Your task to perform on an android device: Play the last video I watched on Youtube Image 0: 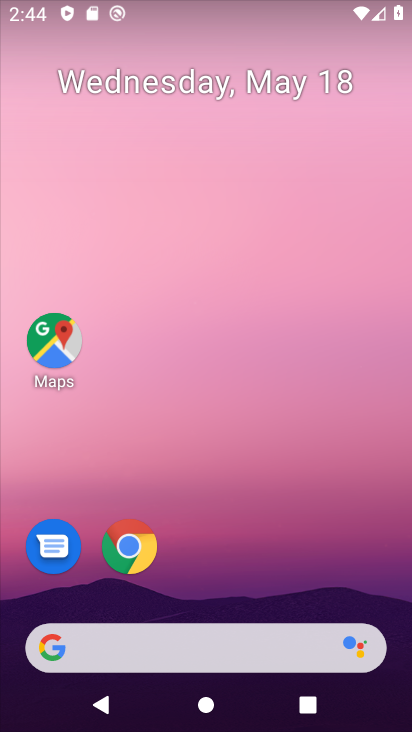
Step 0: drag from (225, 727) to (223, 230)
Your task to perform on an android device: Play the last video I watched on Youtube Image 1: 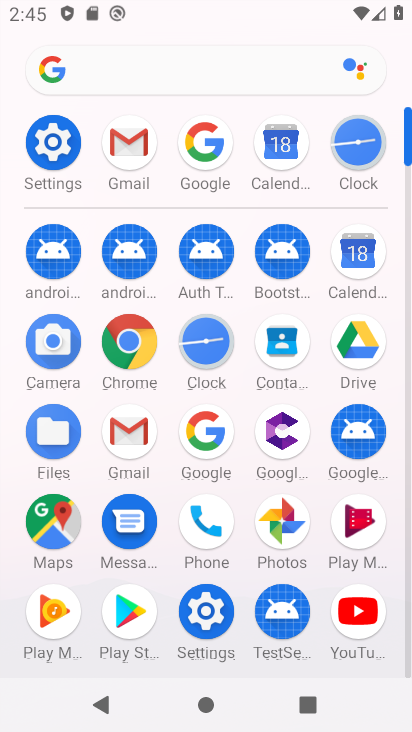
Step 1: click (360, 613)
Your task to perform on an android device: Play the last video I watched on Youtube Image 2: 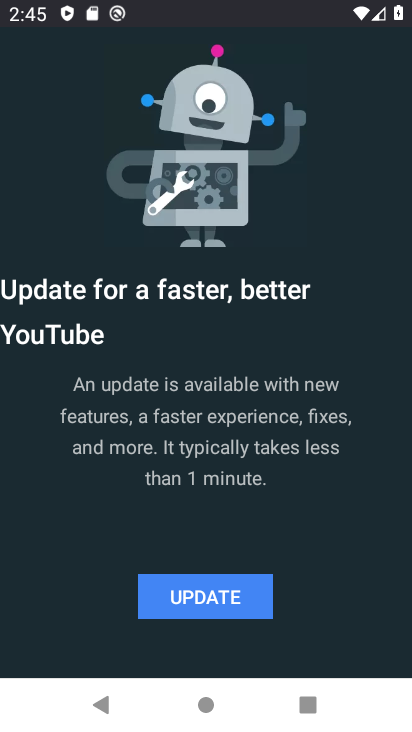
Step 2: click (213, 597)
Your task to perform on an android device: Play the last video I watched on Youtube Image 3: 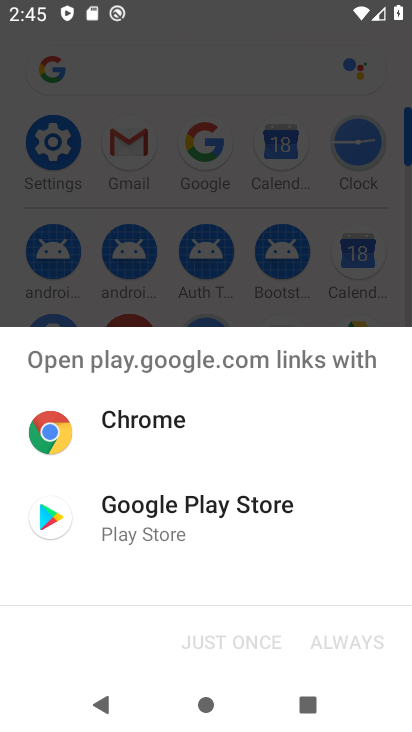
Step 3: click (168, 499)
Your task to perform on an android device: Play the last video I watched on Youtube Image 4: 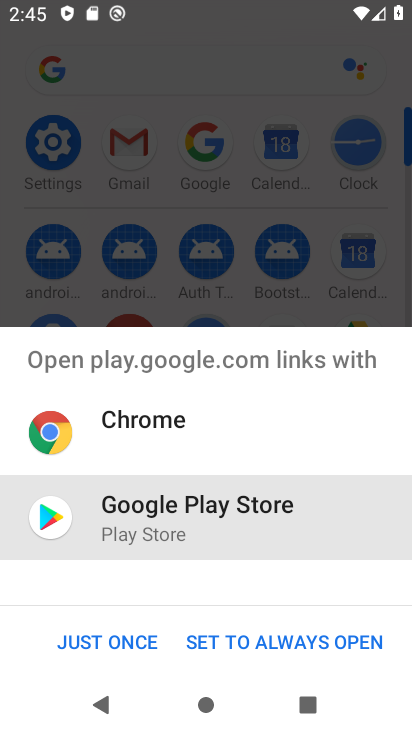
Step 4: click (103, 638)
Your task to perform on an android device: Play the last video I watched on Youtube Image 5: 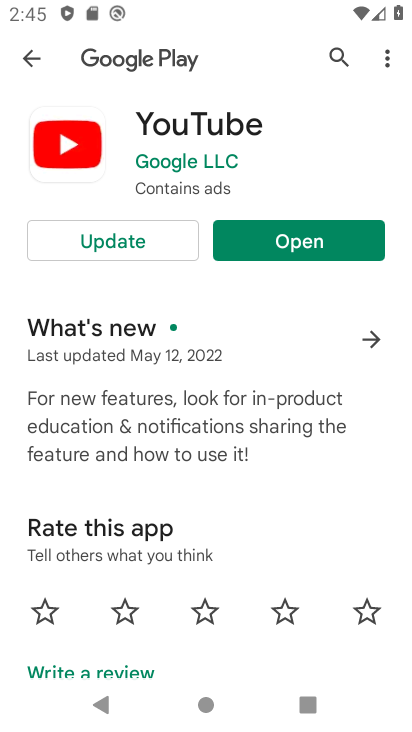
Step 5: click (118, 237)
Your task to perform on an android device: Play the last video I watched on Youtube Image 6: 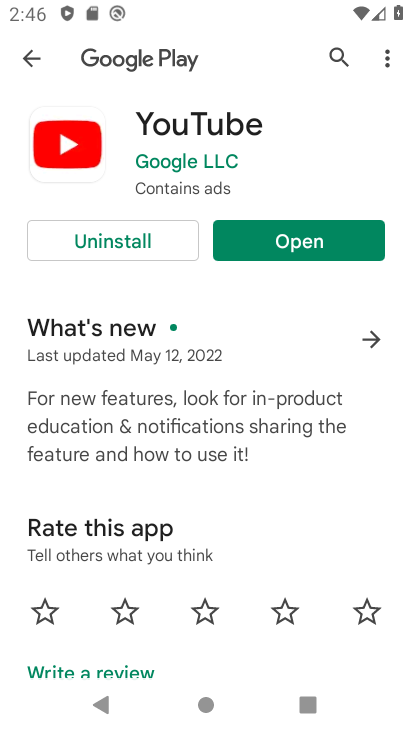
Step 6: click (260, 241)
Your task to perform on an android device: Play the last video I watched on Youtube Image 7: 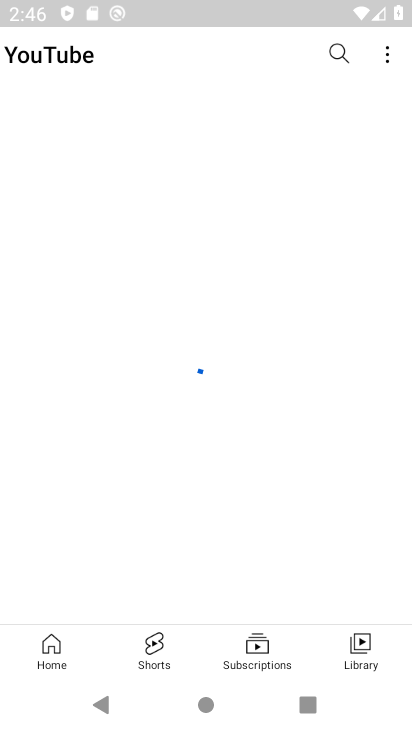
Step 7: click (363, 647)
Your task to perform on an android device: Play the last video I watched on Youtube Image 8: 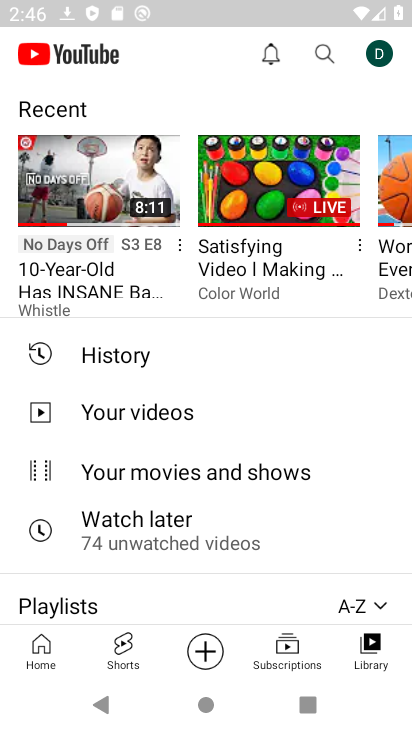
Step 8: click (63, 178)
Your task to perform on an android device: Play the last video I watched on Youtube Image 9: 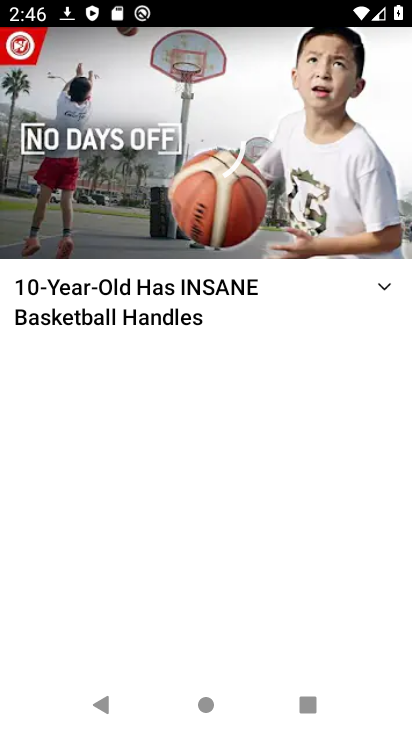
Step 9: task complete